Your task to perform on an android device: Open privacy settings Image 0: 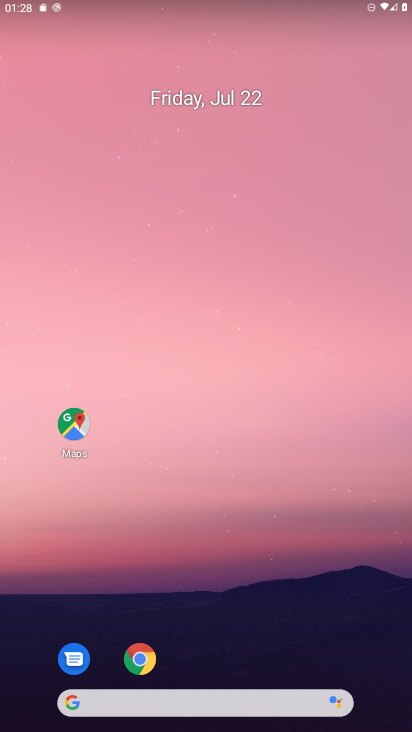
Step 0: drag from (201, 702) to (209, 62)
Your task to perform on an android device: Open privacy settings Image 1: 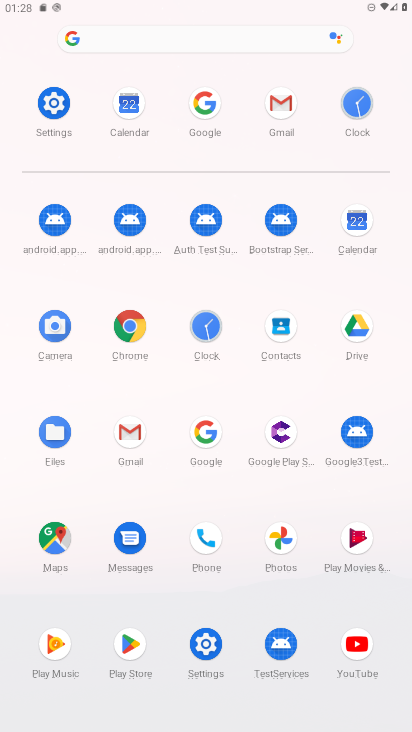
Step 1: click (55, 100)
Your task to perform on an android device: Open privacy settings Image 2: 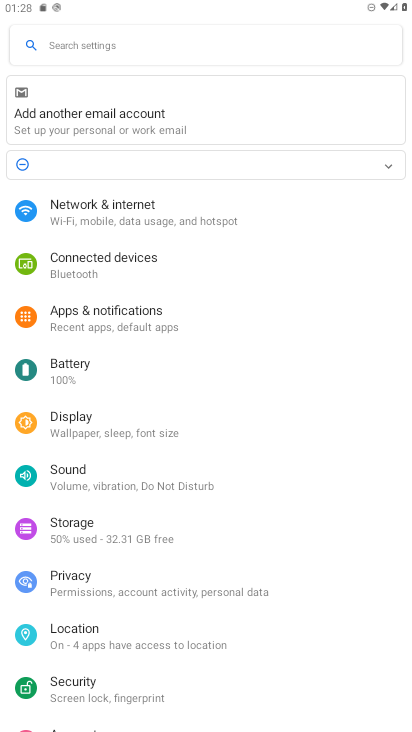
Step 2: click (76, 586)
Your task to perform on an android device: Open privacy settings Image 3: 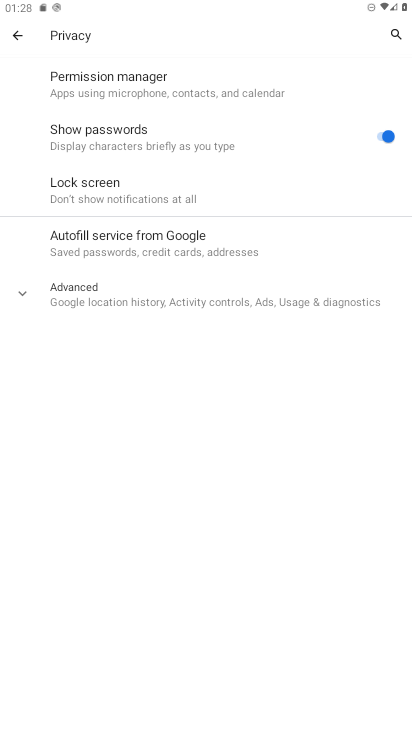
Step 3: task complete